Your task to perform on an android device: turn off wifi Image 0: 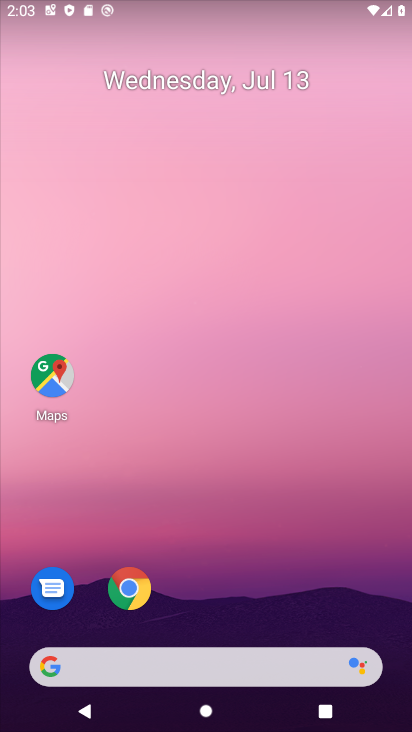
Step 0: drag from (213, 612) to (288, 163)
Your task to perform on an android device: turn off wifi Image 1: 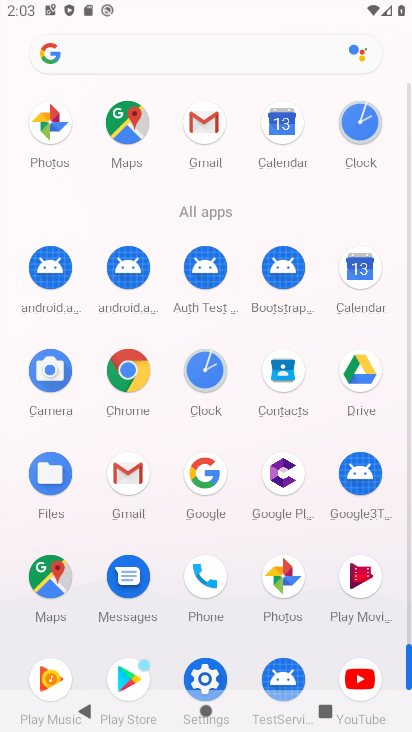
Step 1: click (209, 673)
Your task to perform on an android device: turn off wifi Image 2: 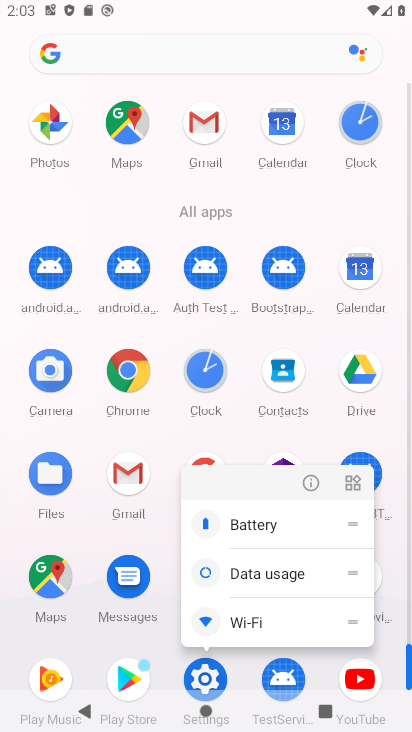
Step 2: click (307, 488)
Your task to perform on an android device: turn off wifi Image 3: 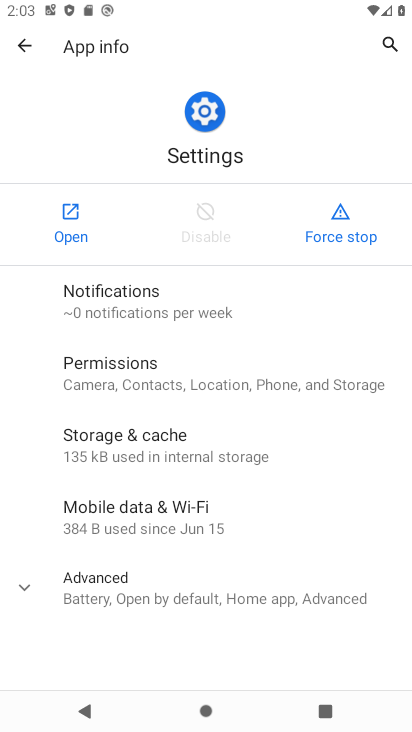
Step 3: click (53, 222)
Your task to perform on an android device: turn off wifi Image 4: 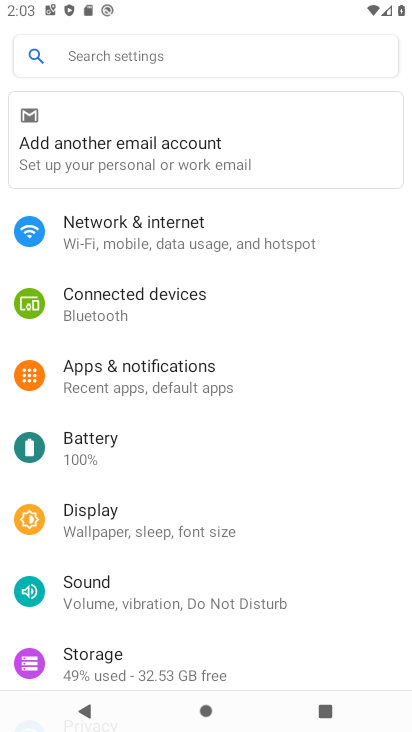
Step 4: drag from (192, 486) to (266, 266)
Your task to perform on an android device: turn off wifi Image 5: 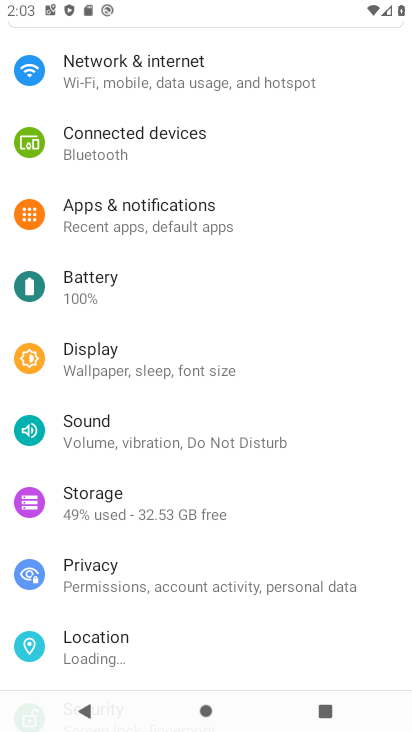
Step 5: drag from (206, 519) to (276, 252)
Your task to perform on an android device: turn off wifi Image 6: 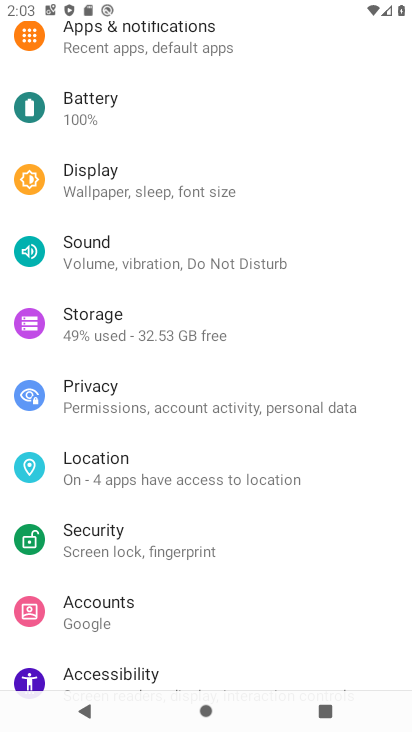
Step 6: click (208, 374)
Your task to perform on an android device: turn off wifi Image 7: 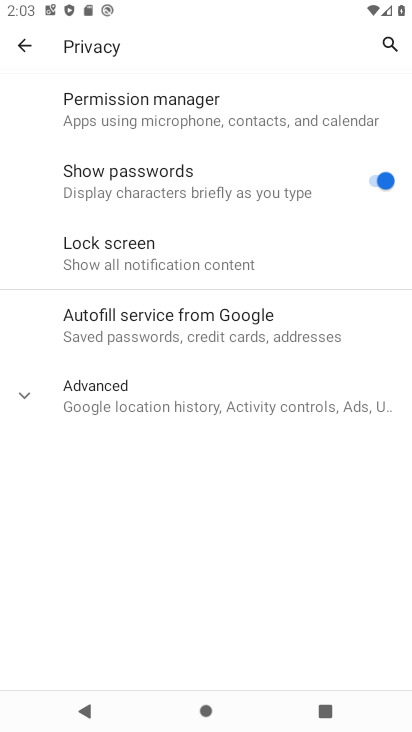
Step 7: drag from (194, 215) to (174, 723)
Your task to perform on an android device: turn off wifi Image 8: 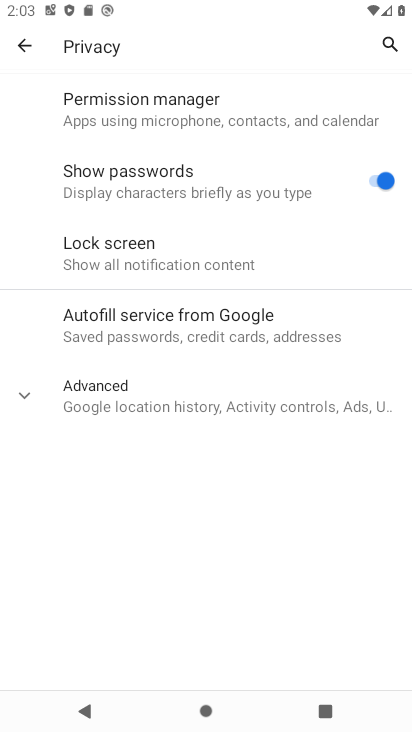
Step 8: click (34, 47)
Your task to perform on an android device: turn off wifi Image 9: 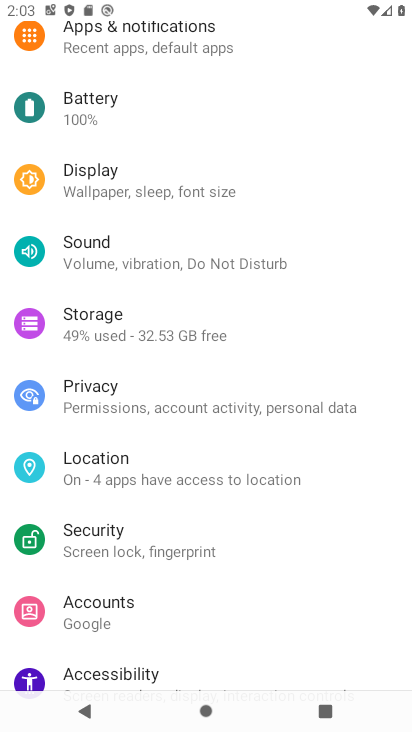
Step 9: drag from (138, 90) to (133, 620)
Your task to perform on an android device: turn off wifi Image 10: 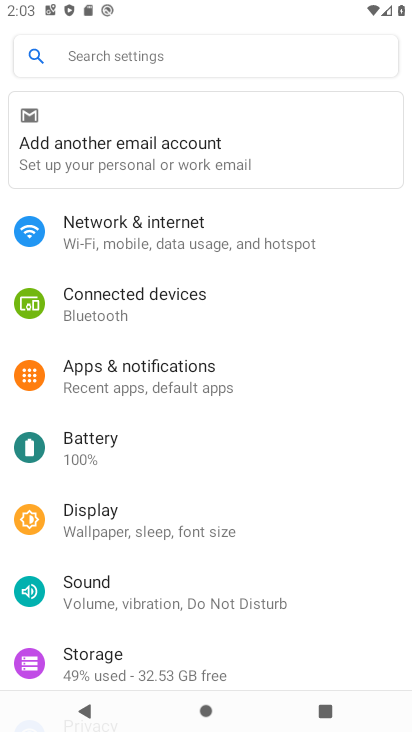
Step 10: click (142, 238)
Your task to perform on an android device: turn off wifi Image 11: 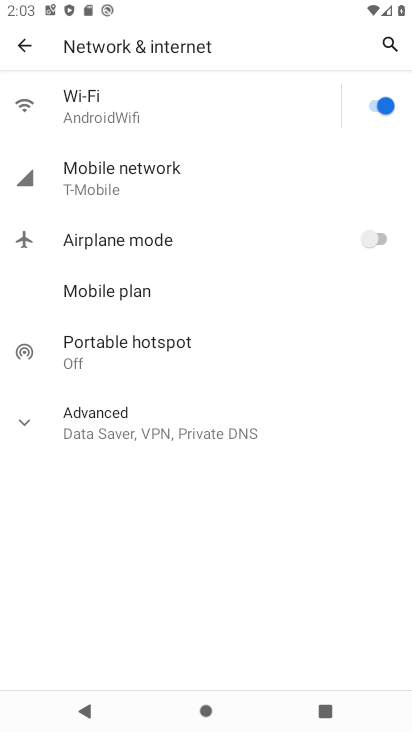
Step 11: click (195, 108)
Your task to perform on an android device: turn off wifi Image 12: 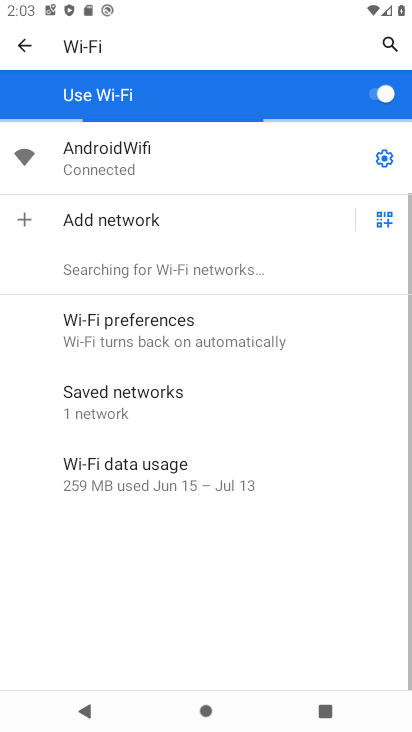
Step 12: click (376, 101)
Your task to perform on an android device: turn off wifi Image 13: 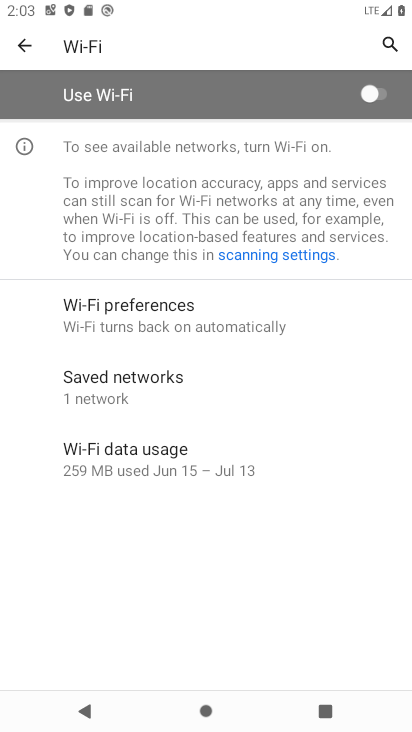
Step 13: task complete